Your task to perform on an android device: delete browsing data in the chrome app Image 0: 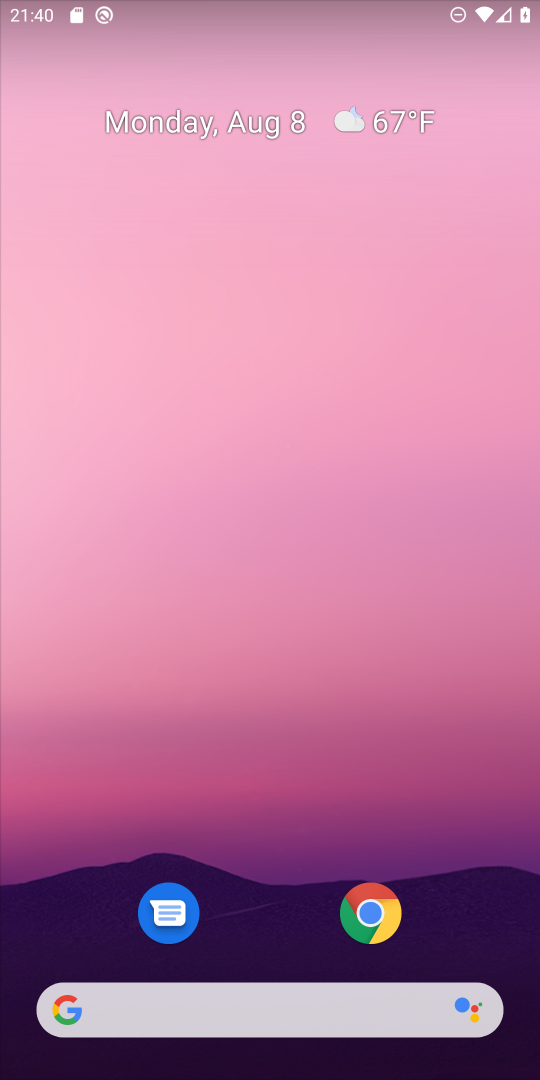
Step 0: click (369, 912)
Your task to perform on an android device: delete browsing data in the chrome app Image 1: 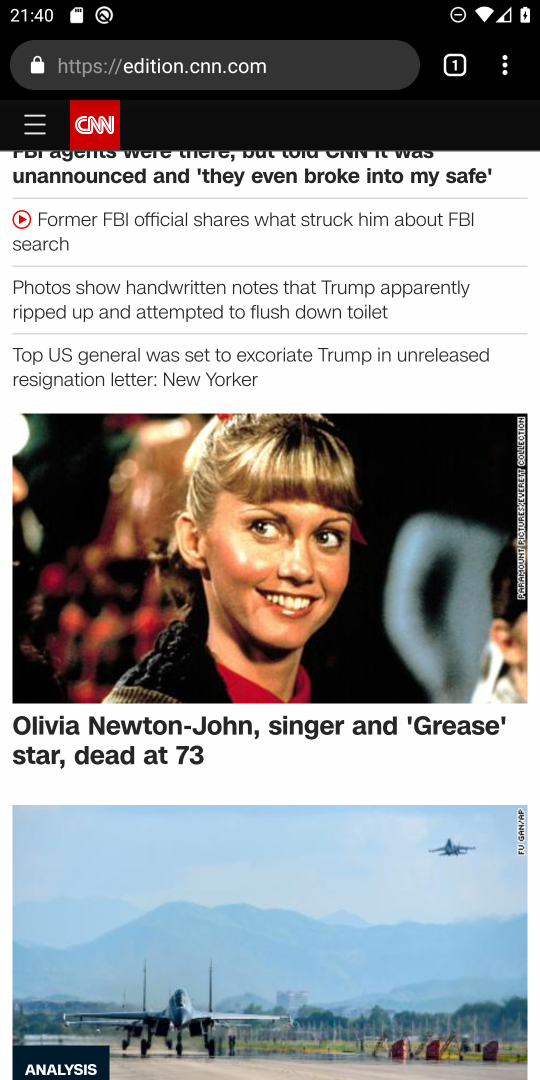
Step 1: drag from (508, 70) to (292, 794)
Your task to perform on an android device: delete browsing data in the chrome app Image 2: 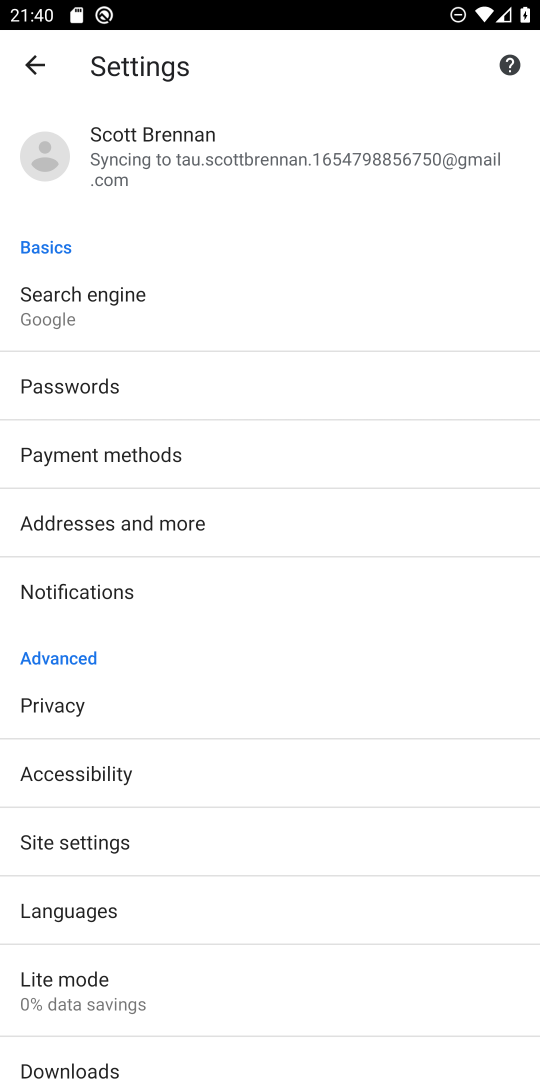
Step 2: click (57, 700)
Your task to perform on an android device: delete browsing data in the chrome app Image 3: 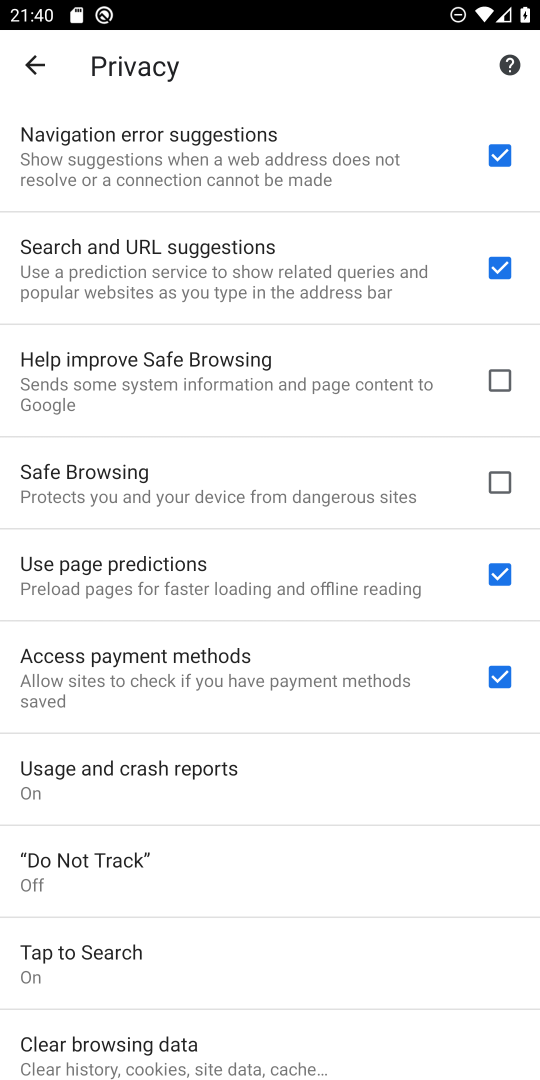
Step 3: drag from (191, 846) to (285, 676)
Your task to perform on an android device: delete browsing data in the chrome app Image 4: 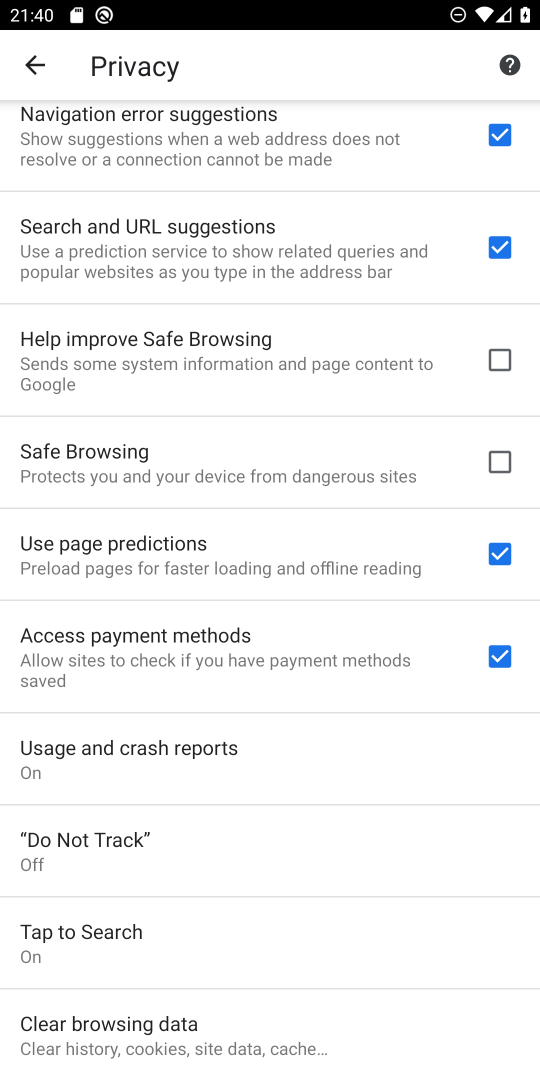
Step 4: click (173, 1047)
Your task to perform on an android device: delete browsing data in the chrome app Image 5: 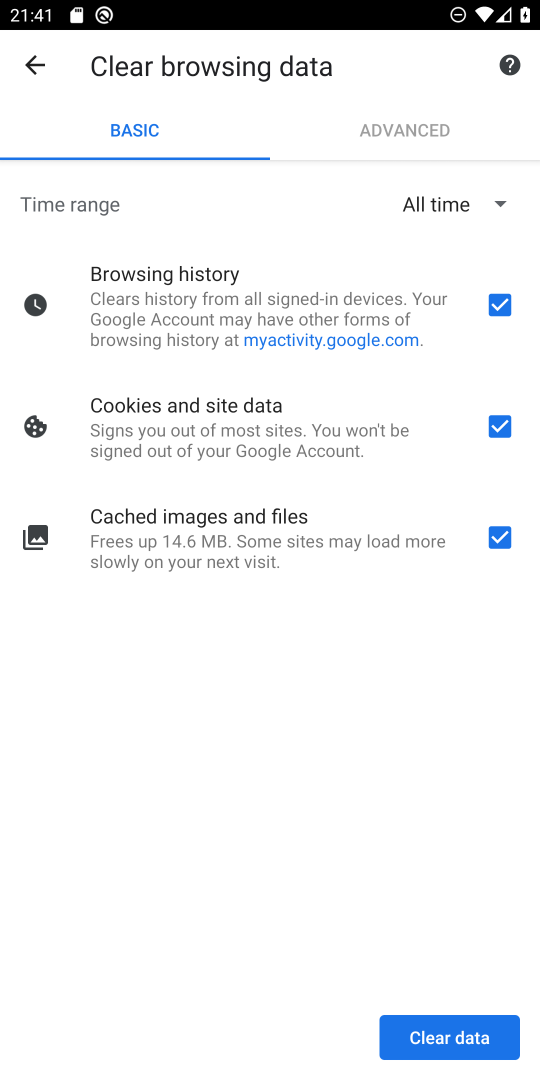
Step 5: click (450, 1040)
Your task to perform on an android device: delete browsing data in the chrome app Image 6: 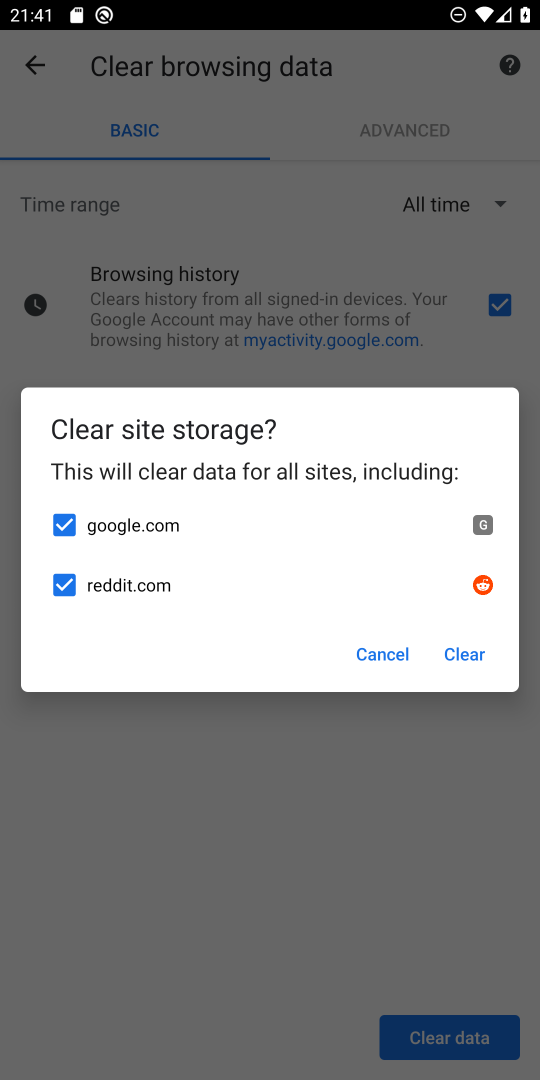
Step 6: click (479, 651)
Your task to perform on an android device: delete browsing data in the chrome app Image 7: 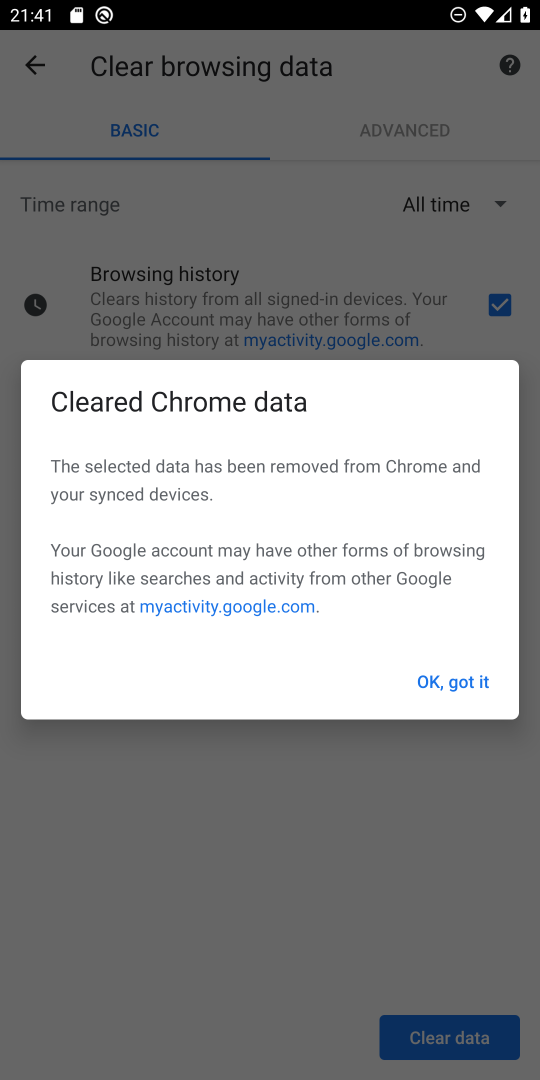
Step 7: click (472, 687)
Your task to perform on an android device: delete browsing data in the chrome app Image 8: 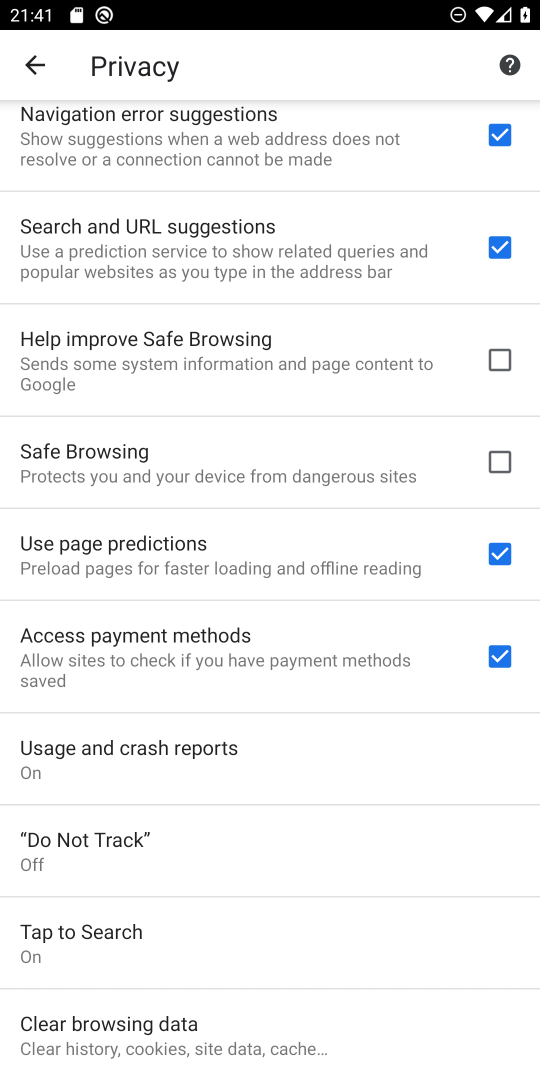
Step 8: task complete